Your task to perform on an android device: Open Reddit.com Image 0: 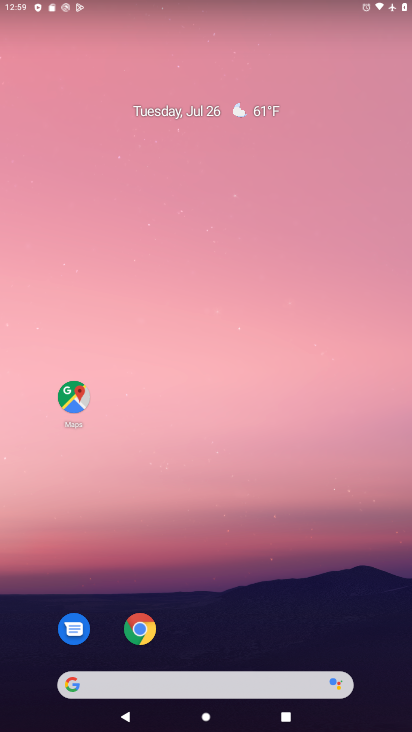
Step 0: drag from (218, 670) to (174, 48)
Your task to perform on an android device: Open Reddit.com Image 1: 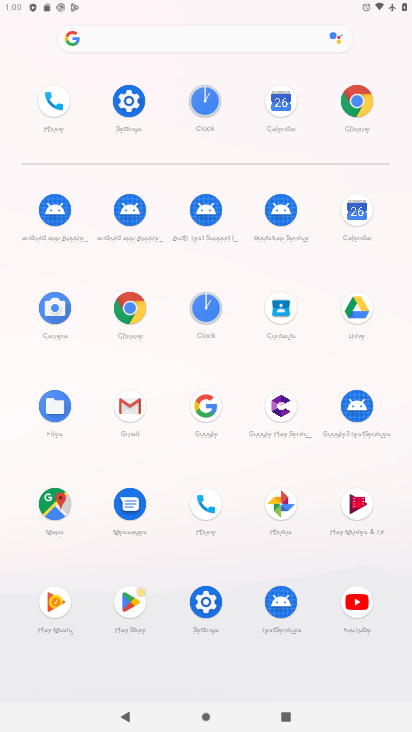
Step 1: click (136, 319)
Your task to perform on an android device: Open Reddit.com Image 2: 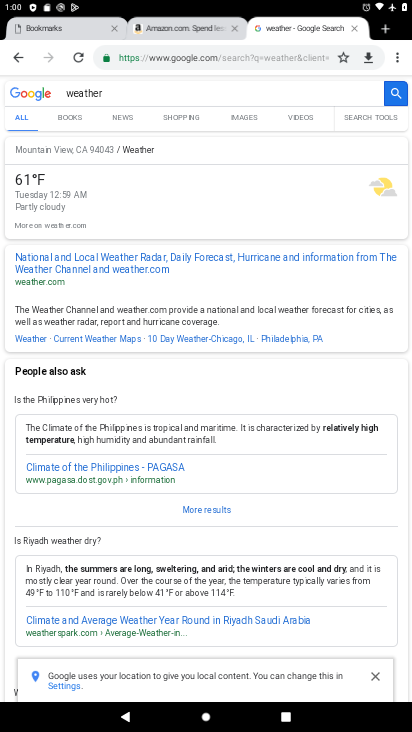
Step 2: click (384, 29)
Your task to perform on an android device: Open Reddit.com Image 3: 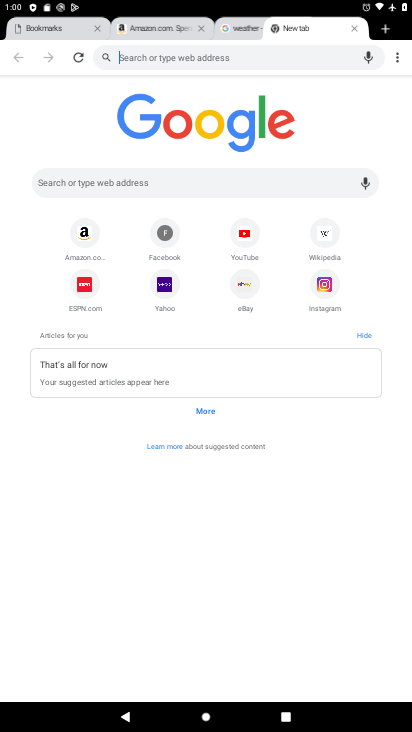
Step 3: click (182, 171)
Your task to perform on an android device: Open Reddit.com Image 4: 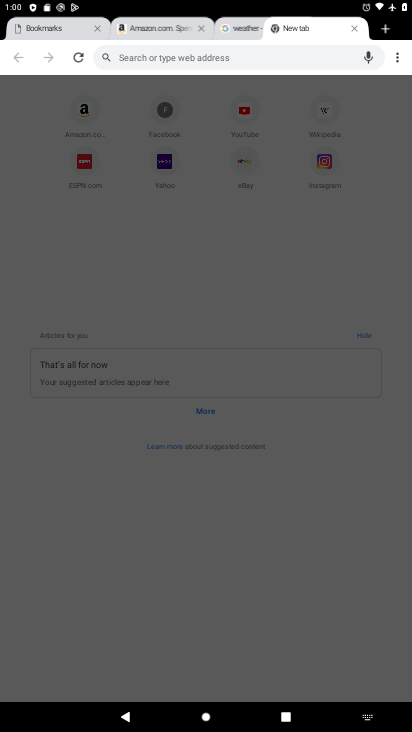
Step 4: type "Reddit.com"
Your task to perform on an android device: Open Reddit.com Image 5: 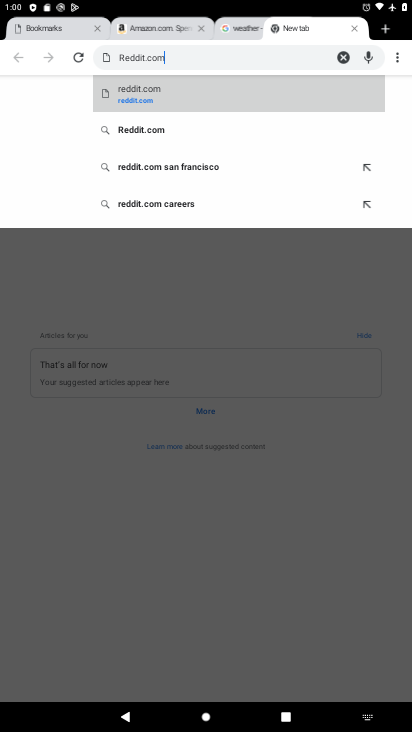
Step 5: type ""
Your task to perform on an android device: Open Reddit.com Image 6: 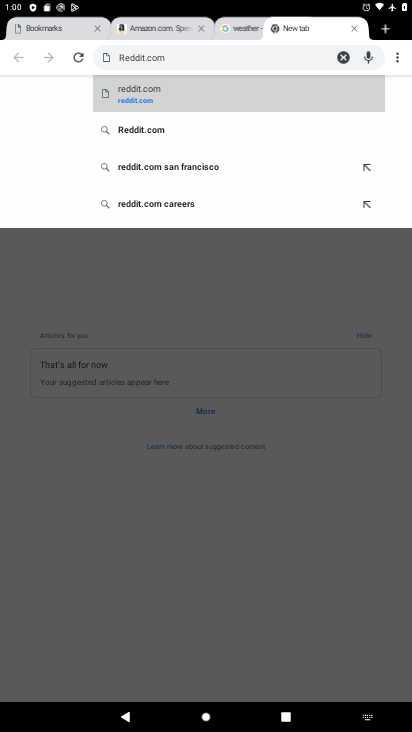
Step 6: click (128, 88)
Your task to perform on an android device: Open Reddit.com Image 7: 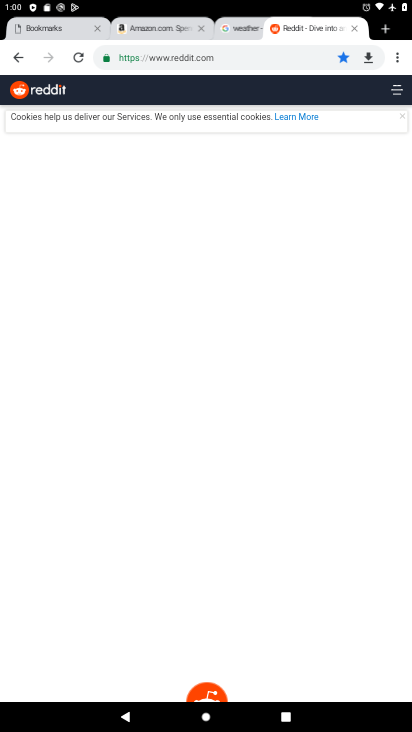
Step 7: task complete